Your task to perform on an android device: Go to network settings Image 0: 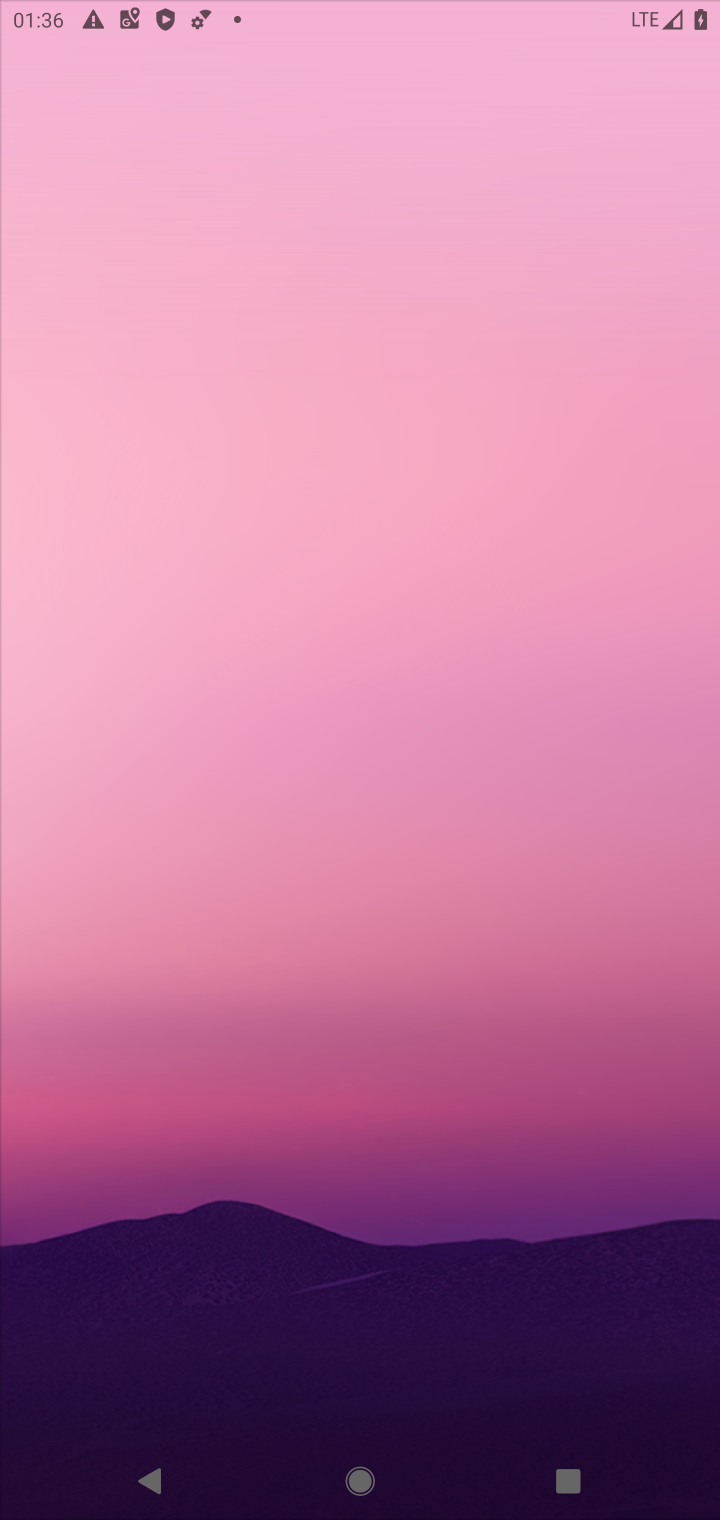
Step 0: press home button
Your task to perform on an android device: Go to network settings Image 1: 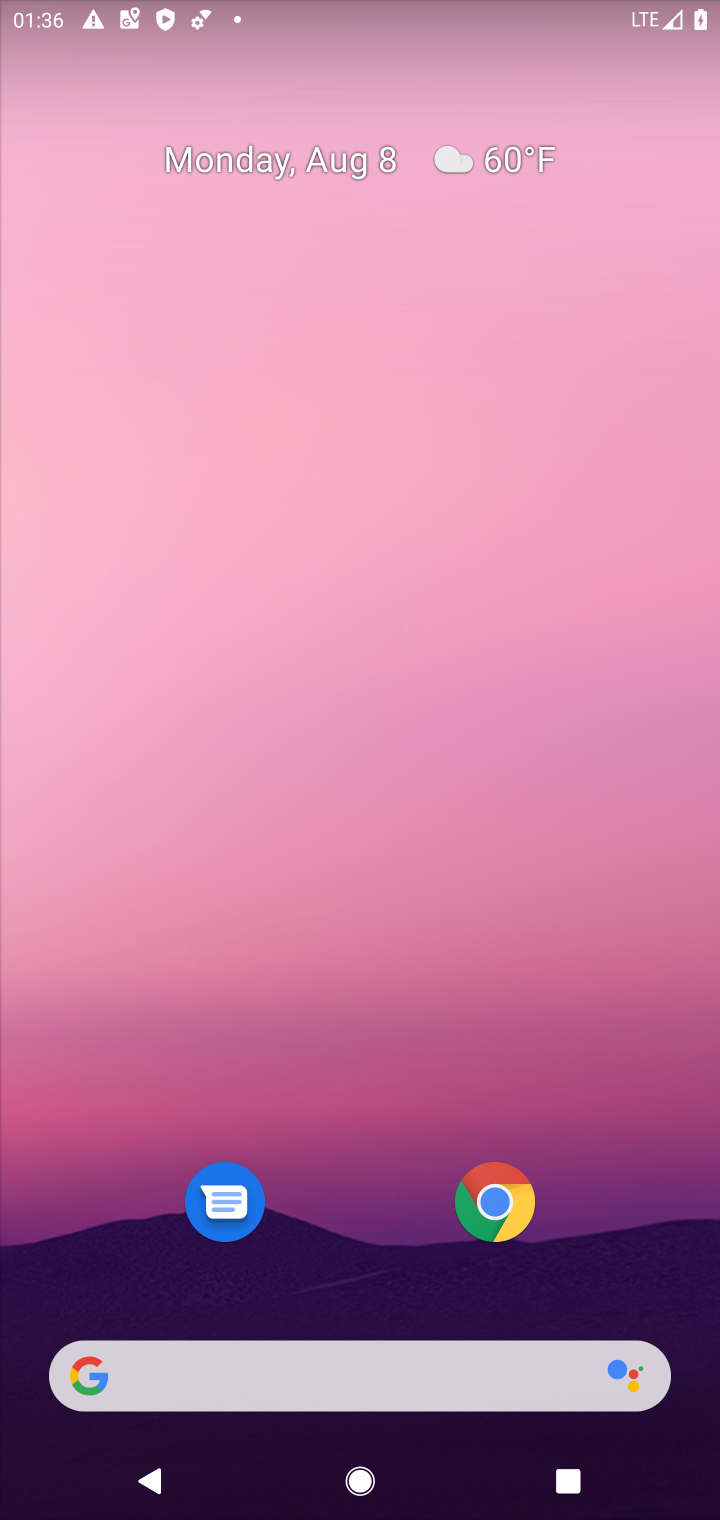
Step 1: drag from (382, 1249) to (152, 168)
Your task to perform on an android device: Go to network settings Image 2: 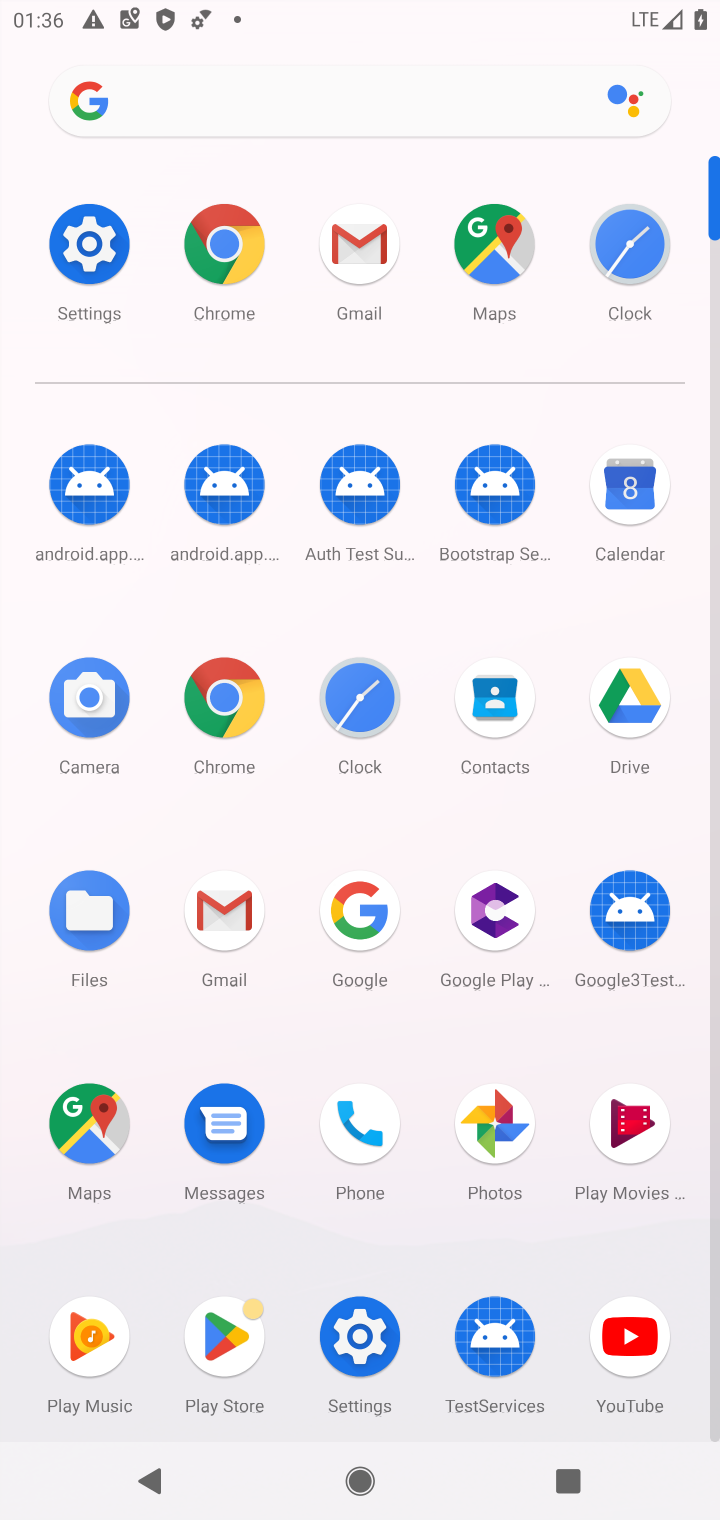
Step 2: click (77, 335)
Your task to perform on an android device: Go to network settings Image 3: 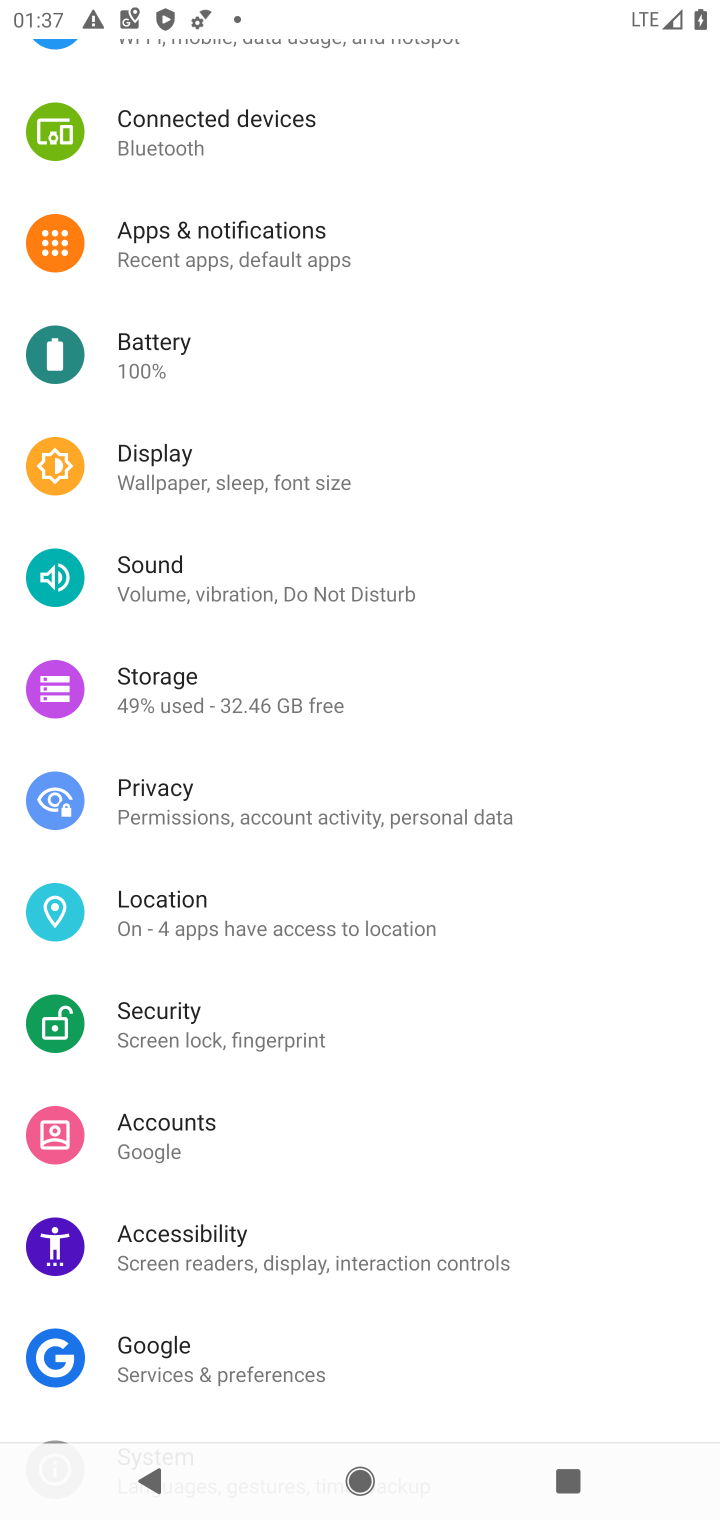
Step 3: drag from (283, 562) to (323, 1493)
Your task to perform on an android device: Go to network settings Image 4: 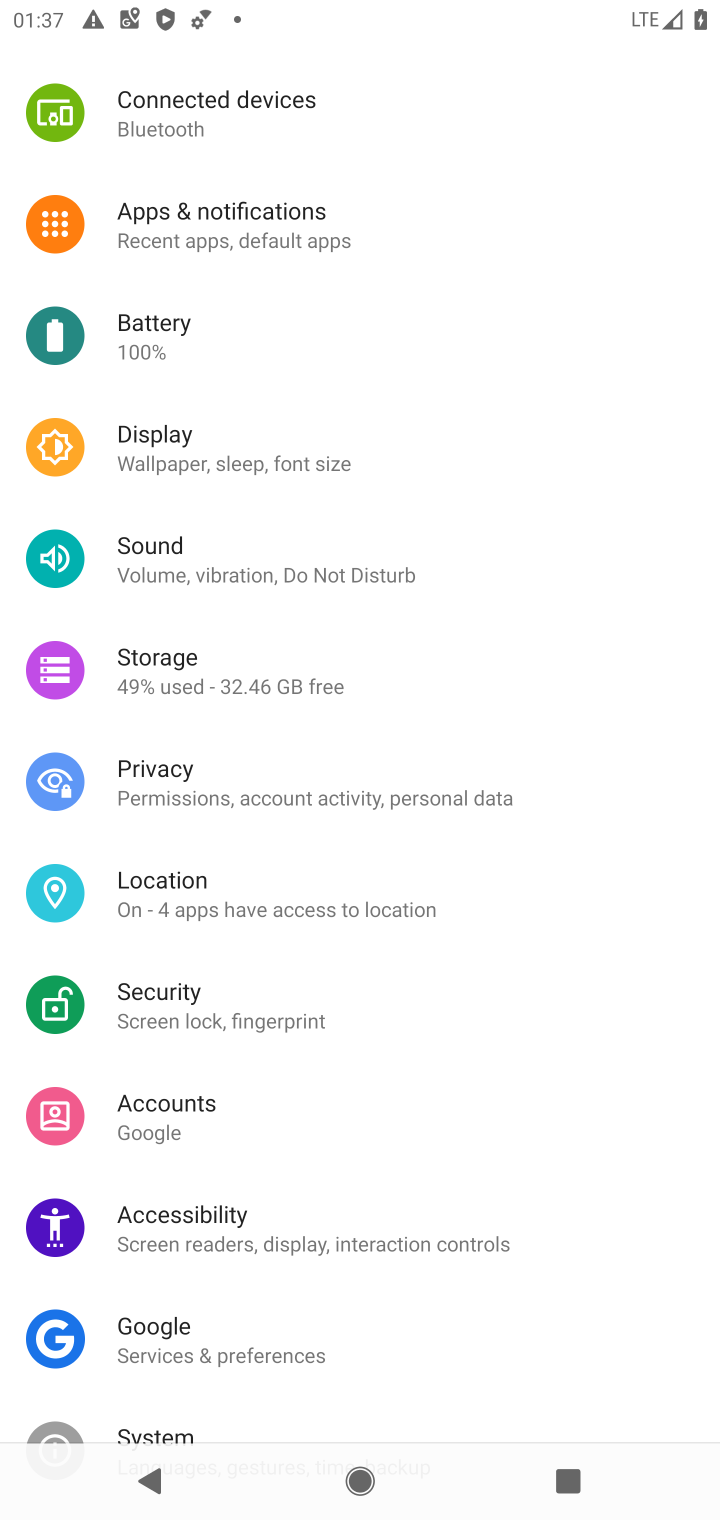
Step 4: drag from (270, 132) to (443, 1515)
Your task to perform on an android device: Go to network settings Image 5: 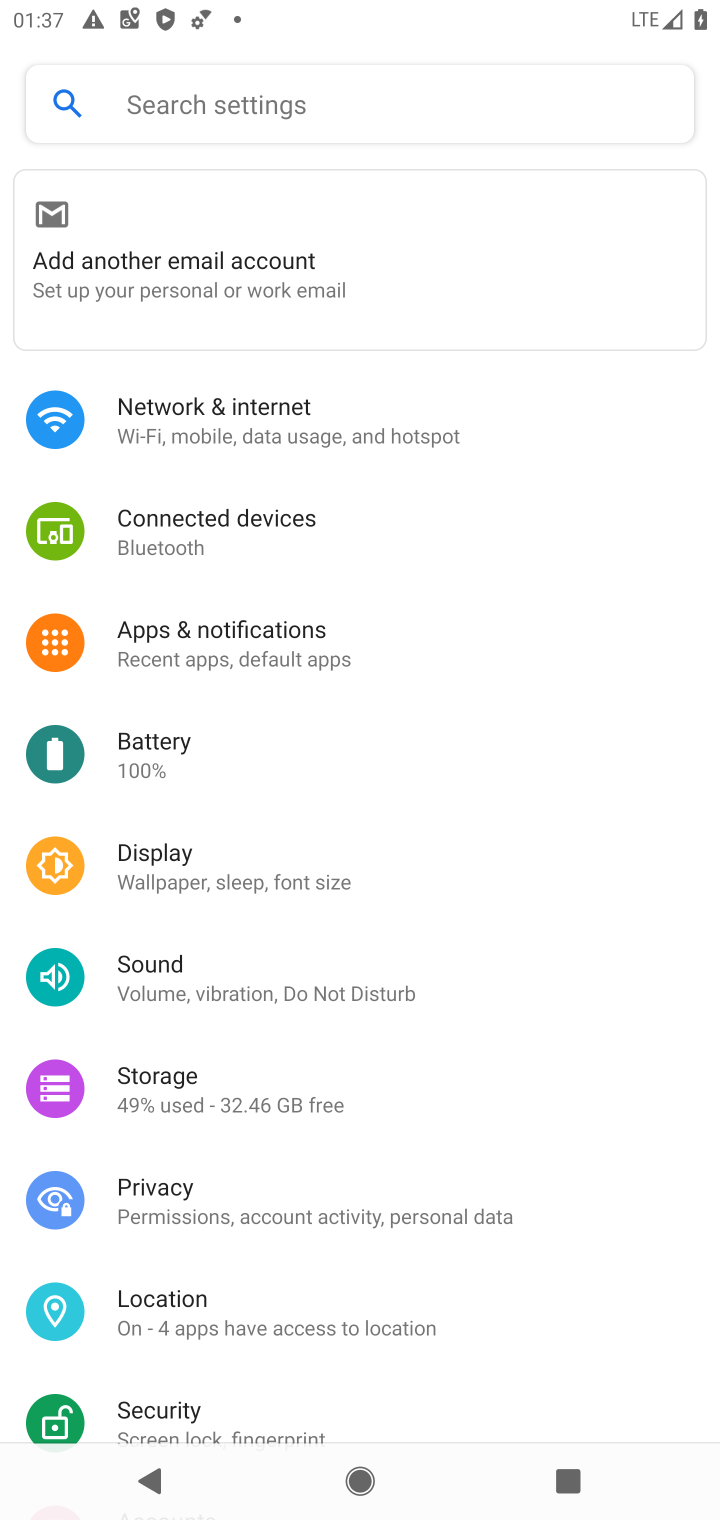
Step 5: click (267, 424)
Your task to perform on an android device: Go to network settings Image 6: 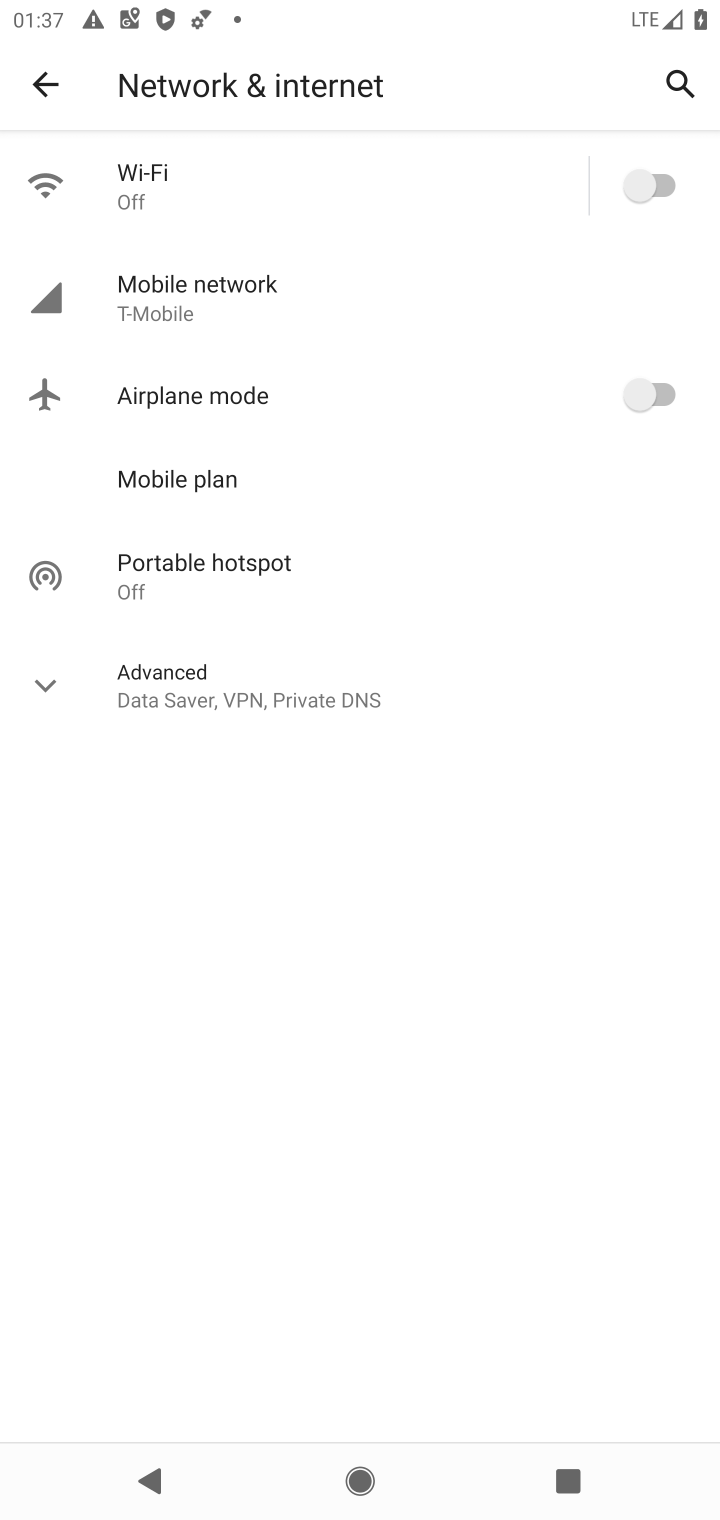
Step 6: task complete